Your task to perform on an android device: Open sound settings Image 0: 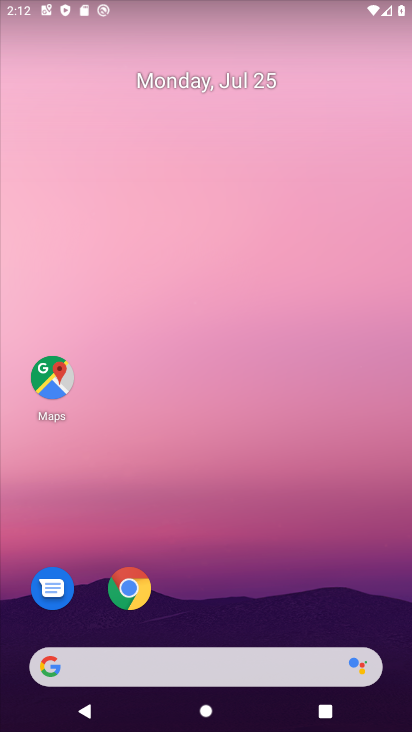
Step 0: drag from (220, 589) to (170, 65)
Your task to perform on an android device: Open sound settings Image 1: 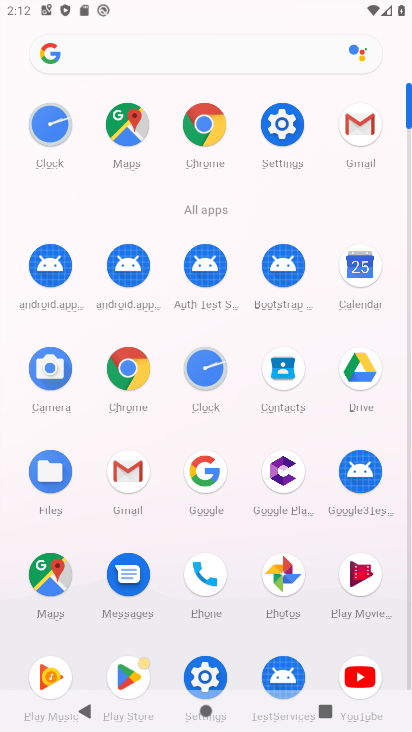
Step 1: click (281, 115)
Your task to perform on an android device: Open sound settings Image 2: 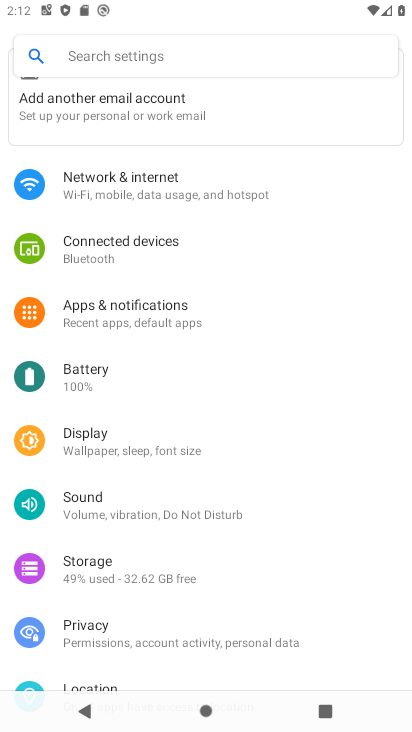
Step 2: click (146, 490)
Your task to perform on an android device: Open sound settings Image 3: 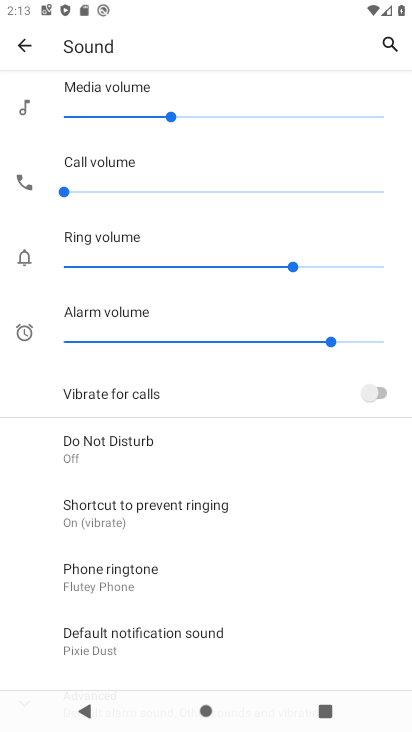
Step 3: task complete